Your task to perform on an android device: Open notification settings Image 0: 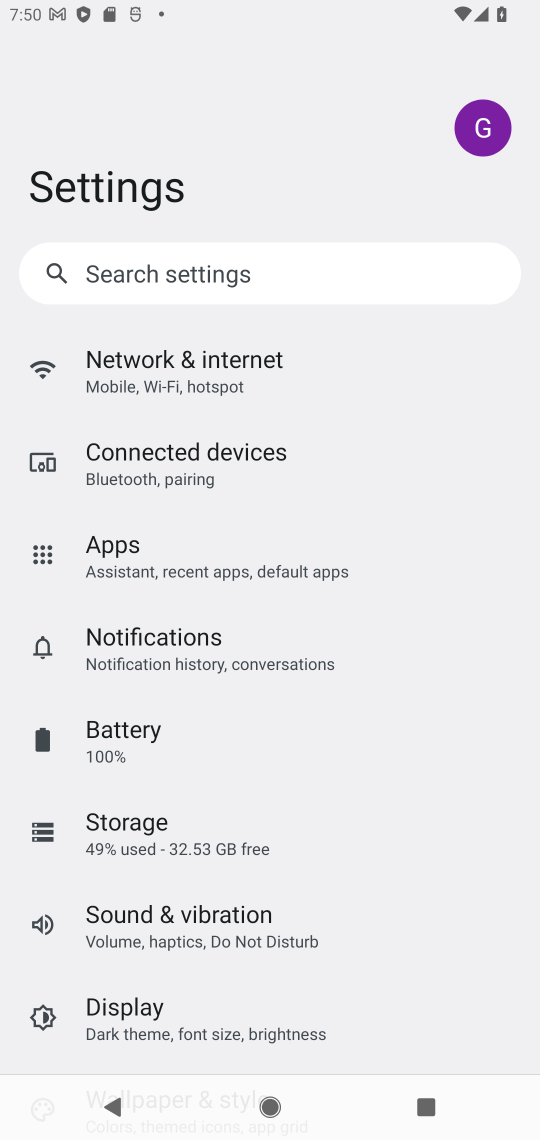
Step 0: click (346, 662)
Your task to perform on an android device: Open notification settings Image 1: 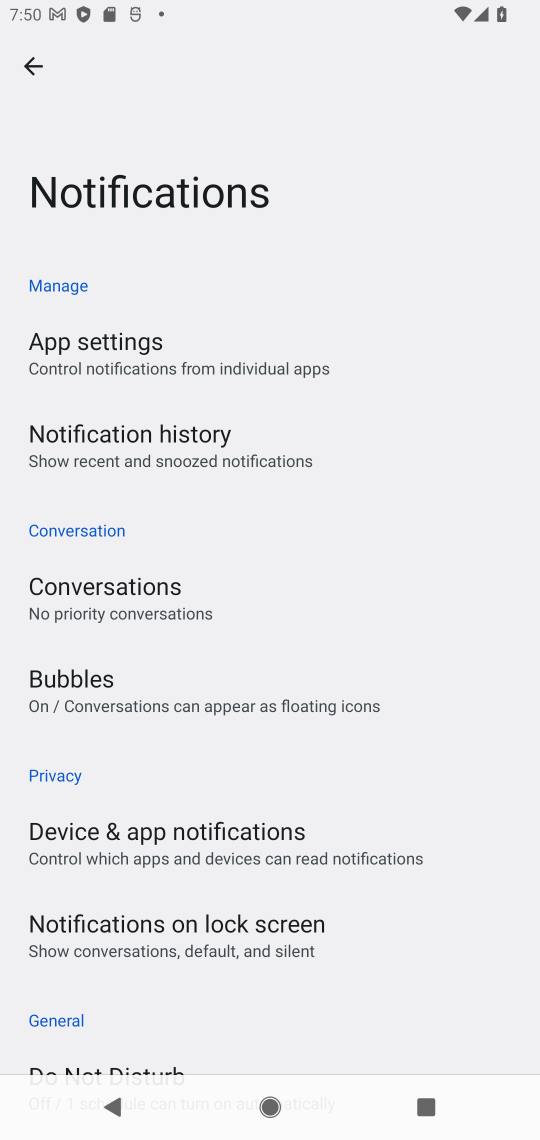
Step 1: task complete